Your task to perform on an android device: Go to battery settings Image 0: 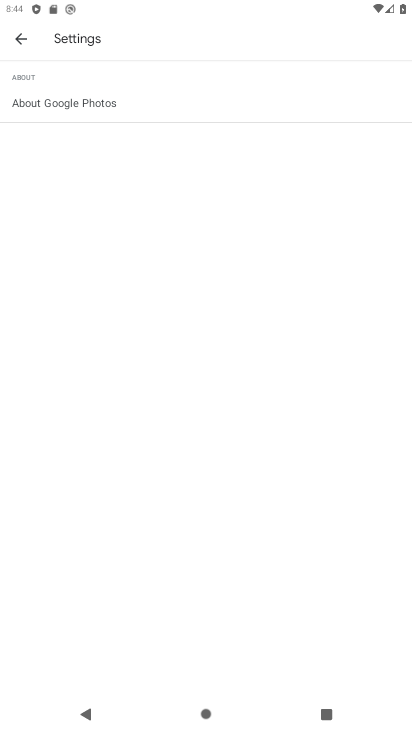
Step 0: press home button
Your task to perform on an android device: Go to battery settings Image 1: 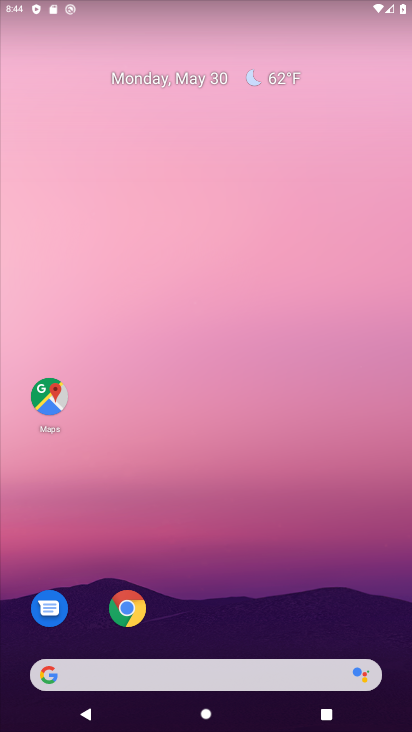
Step 1: drag from (191, 620) to (250, 159)
Your task to perform on an android device: Go to battery settings Image 2: 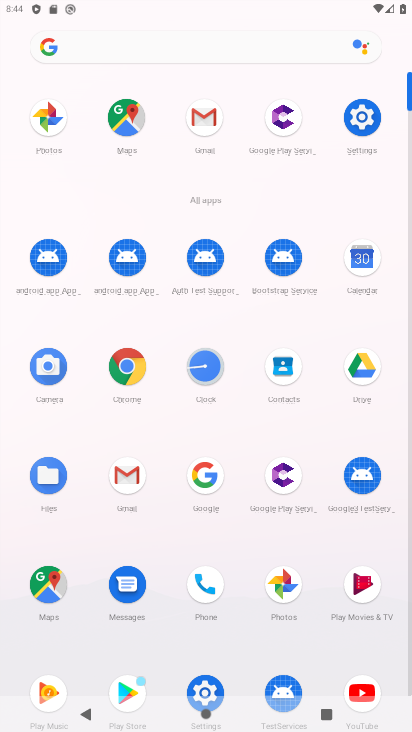
Step 2: drag from (194, 568) to (247, 401)
Your task to perform on an android device: Go to battery settings Image 3: 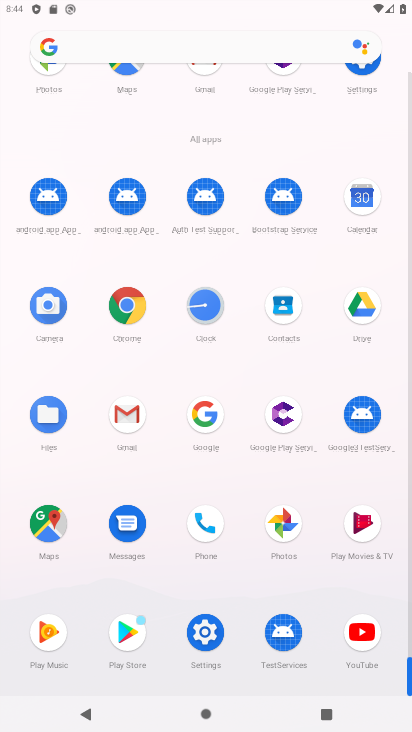
Step 3: click (215, 653)
Your task to perform on an android device: Go to battery settings Image 4: 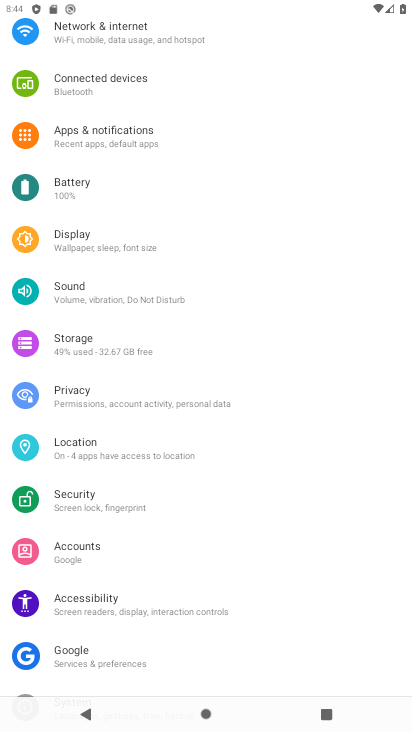
Step 4: click (105, 179)
Your task to perform on an android device: Go to battery settings Image 5: 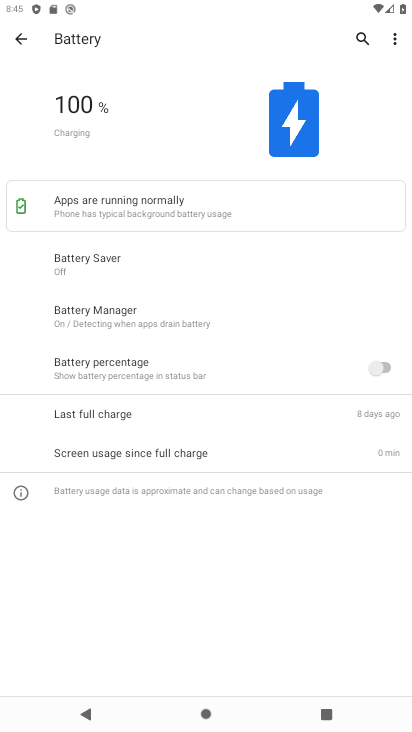
Step 5: task complete